Your task to perform on an android device: Is it going to rain this weekend? Image 0: 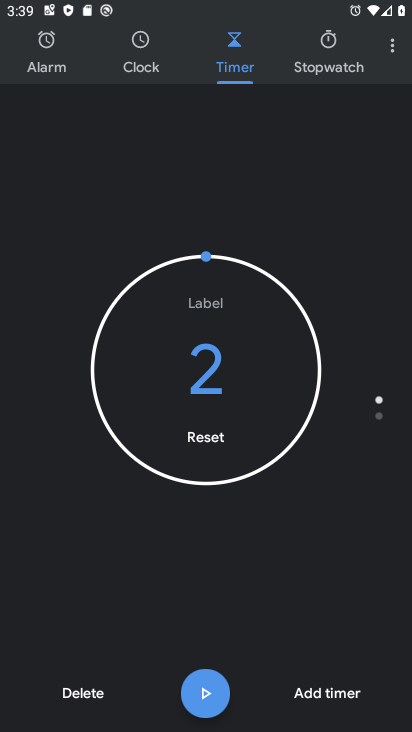
Step 0: press home button
Your task to perform on an android device: Is it going to rain this weekend? Image 1: 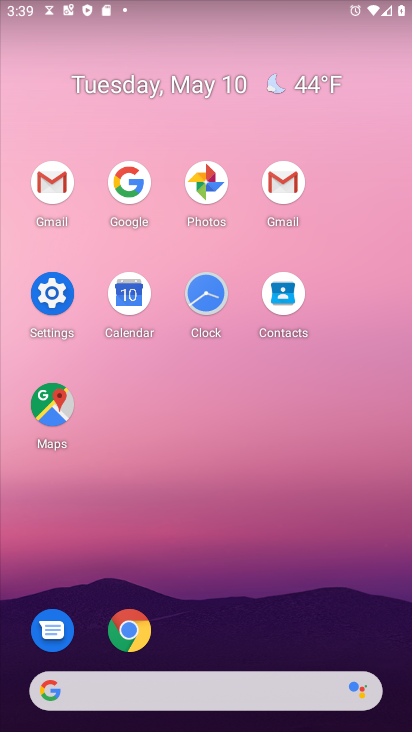
Step 1: click (129, 174)
Your task to perform on an android device: Is it going to rain this weekend? Image 2: 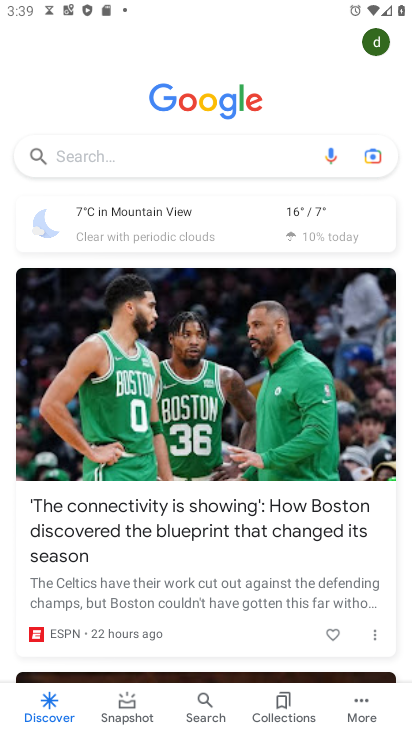
Step 2: click (175, 150)
Your task to perform on an android device: Is it going to rain this weekend? Image 3: 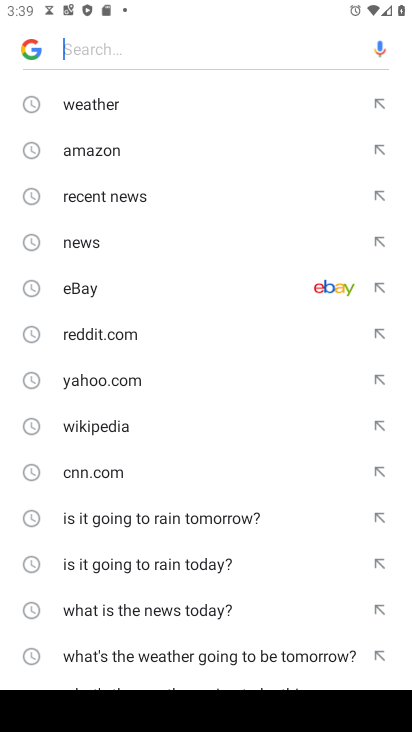
Step 3: drag from (246, 620) to (252, 292)
Your task to perform on an android device: Is it going to rain this weekend? Image 4: 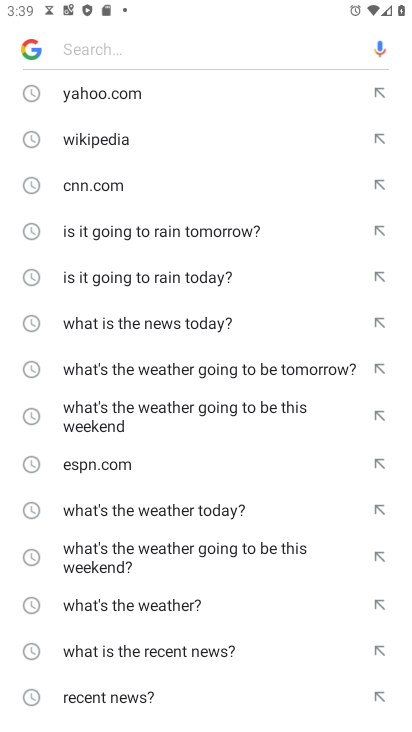
Step 4: drag from (262, 598) to (269, 316)
Your task to perform on an android device: Is it going to rain this weekend? Image 5: 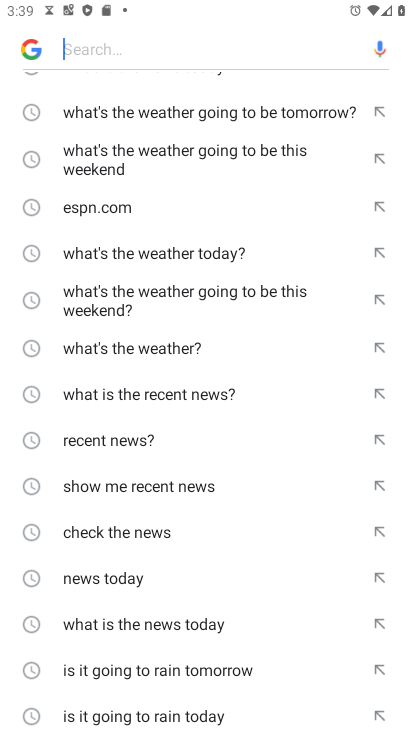
Step 5: drag from (255, 237) to (294, 587)
Your task to perform on an android device: Is it going to rain this weekend? Image 6: 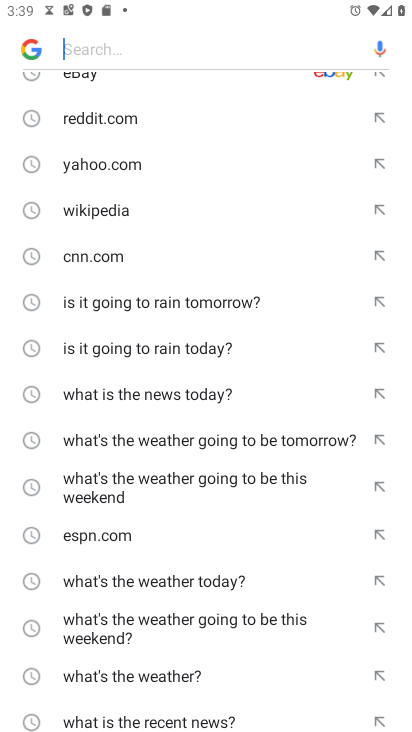
Step 6: drag from (251, 224) to (250, 508)
Your task to perform on an android device: Is it going to rain this weekend? Image 7: 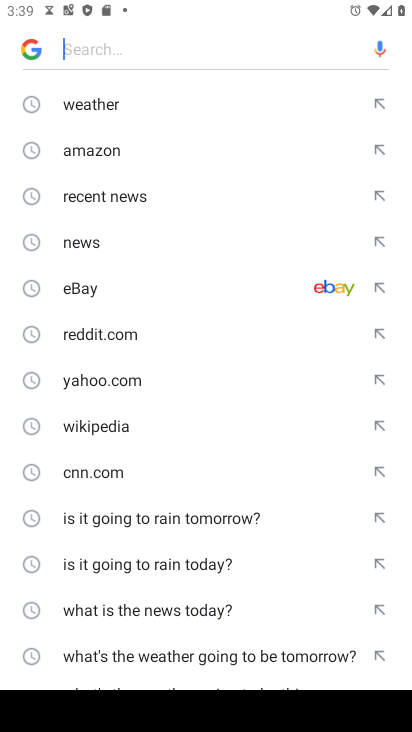
Step 7: drag from (219, 191) to (230, 456)
Your task to perform on an android device: Is it going to rain this weekend? Image 8: 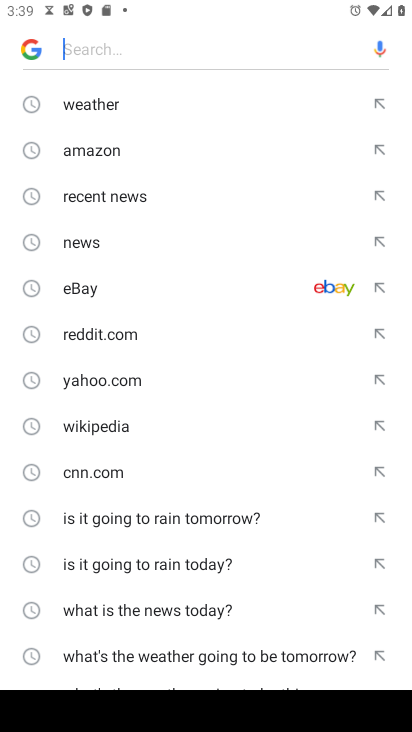
Step 8: drag from (218, 442) to (240, 142)
Your task to perform on an android device: Is it going to rain this weekend? Image 9: 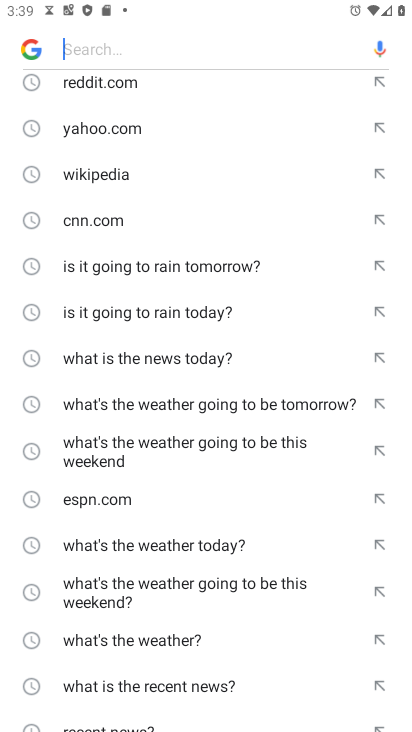
Step 9: drag from (266, 563) to (263, 140)
Your task to perform on an android device: Is it going to rain this weekend? Image 10: 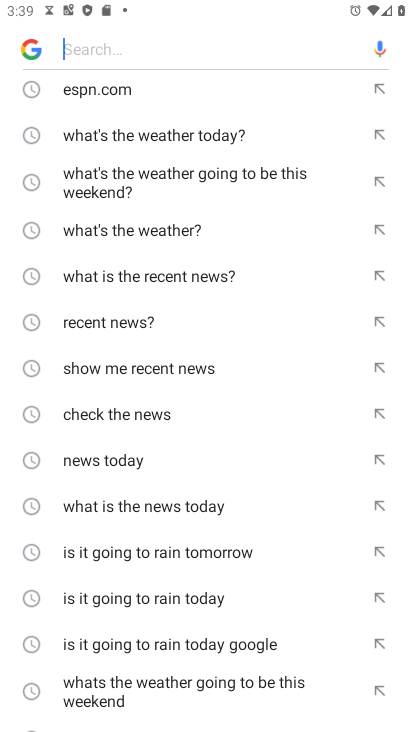
Step 10: drag from (299, 529) to (294, 118)
Your task to perform on an android device: Is it going to rain this weekend? Image 11: 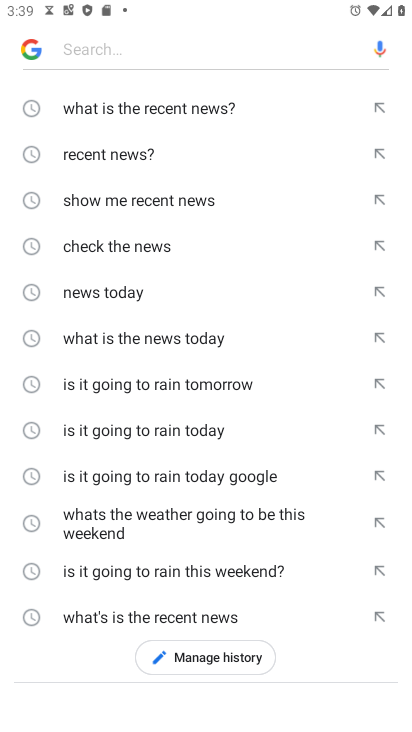
Step 11: drag from (260, 166) to (215, 642)
Your task to perform on an android device: Is it going to rain this weekend? Image 12: 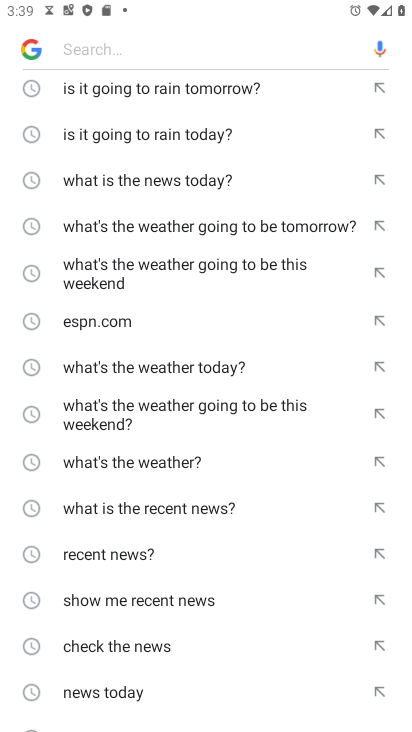
Step 12: drag from (259, 113) to (268, 581)
Your task to perform on an android device: Is it going to rain this weekend? Image 13: 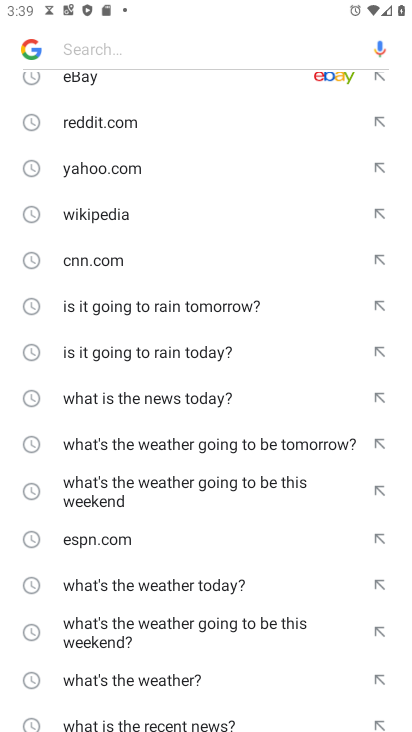
Step 13: drag from (193, 96) to (266, 511)
Your task to perform on an android device: Is it going to rain this weekend? Image 14: 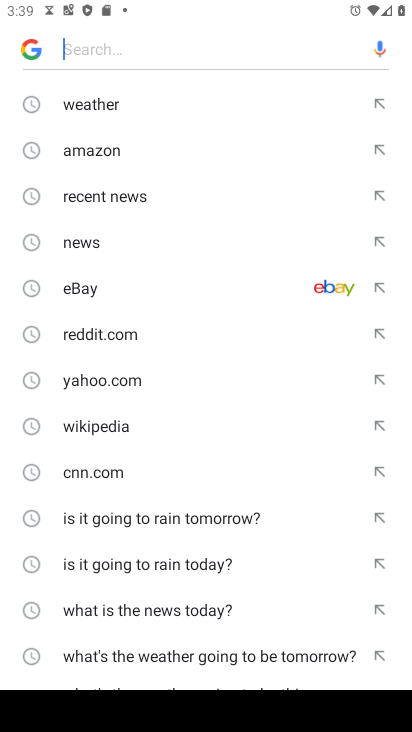
Step 14: click (137, 115)
Your task to perform on an android device: Is it going to rain this weekend? Image 15: 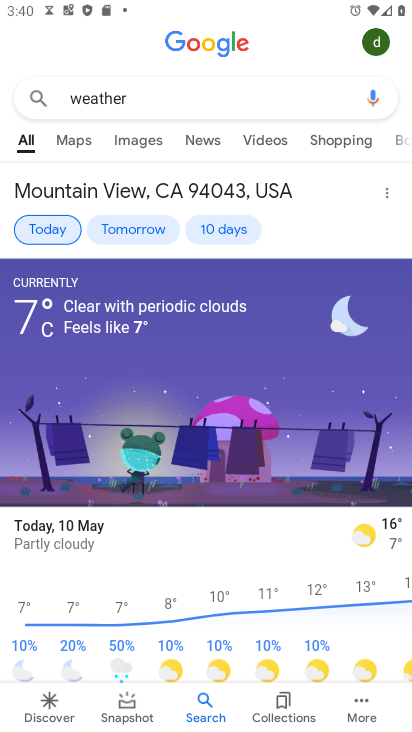
Step 15: click (220, 226)
Your task to perform on an android device: Is it going to rain this weekend? Image 16: 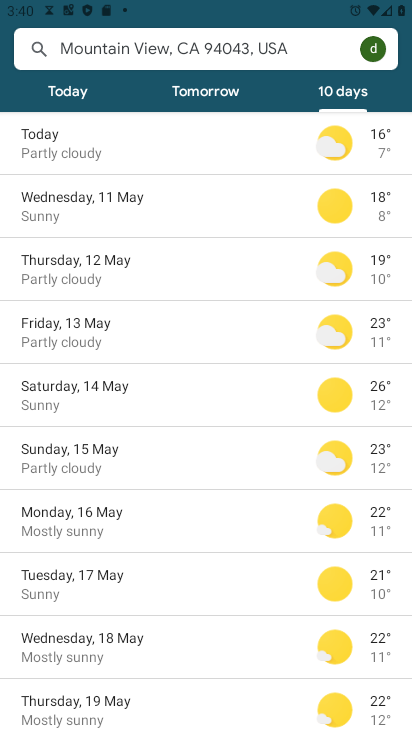
Step 16: drag from (169, 695) to (206, 494)
Your task to perform on an android device: Is it going to rain this weekend? Image 17: 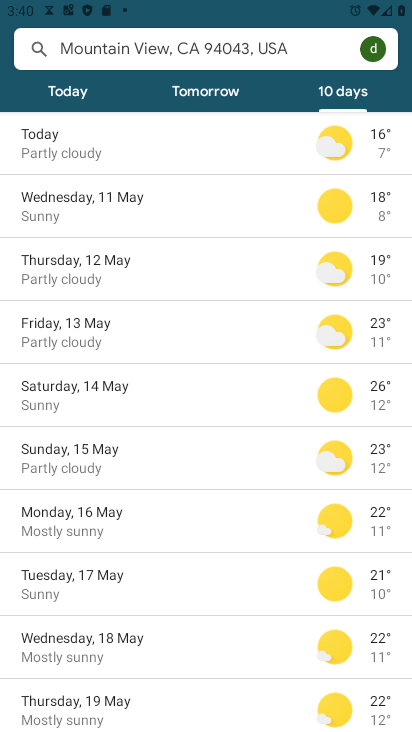
Step 17: click (192, 404)
Your task to perform on an android device: Is it going to rain this weekend? Image 18: 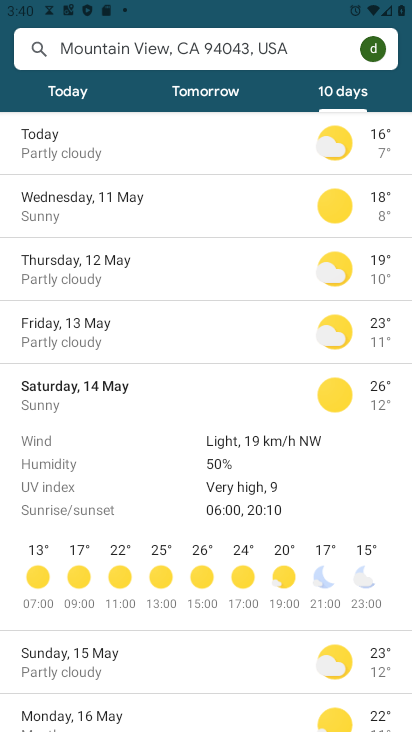
Step 18: task complete